Your task to perform on an android device: turn off airplane mode Image 0: 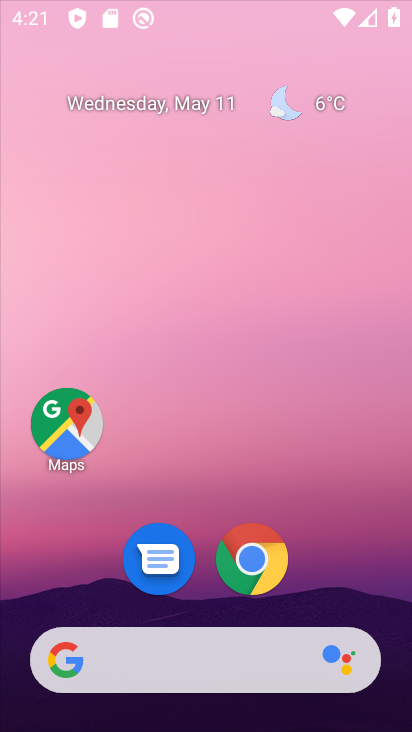
Step 0: drag from (322, 561) to (355, 190)
Your task to perform on an android device: turn off airplane mode Image 1: 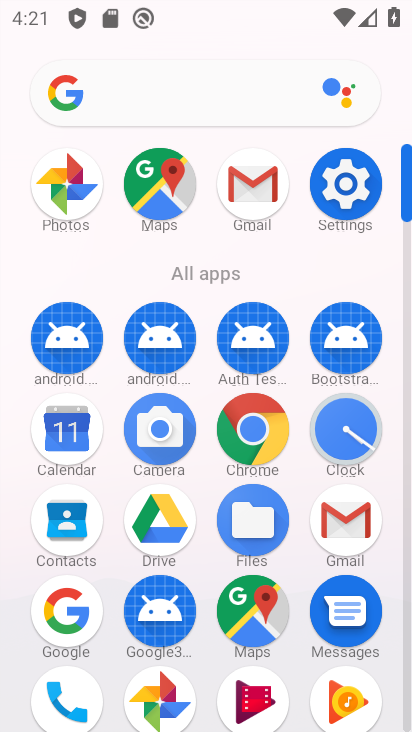
Step 1: click (347, 182)
Your task to perform on an android device: turn off airplane mode Image 2: 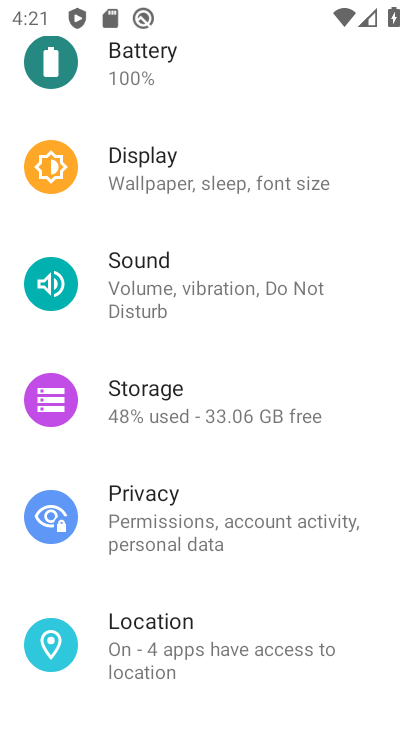
Step 2: drag from (207, 129) to (184, 490)
Your task to perform on an android device: turn off airplane mode Image 3: 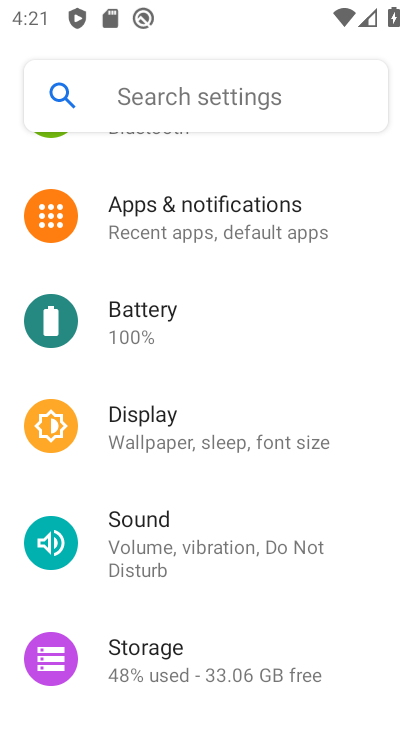
Step 3: drag from (207, 158) to (177, 525)
Your task to perform on an android device: turn off airplane mode Image 4: 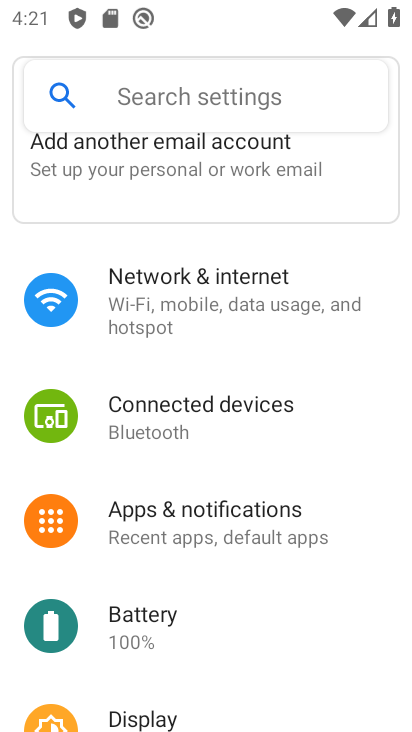
Step 4: click (174, 227)
Your task to perform on an android device: turn off airplane mode Image 5: 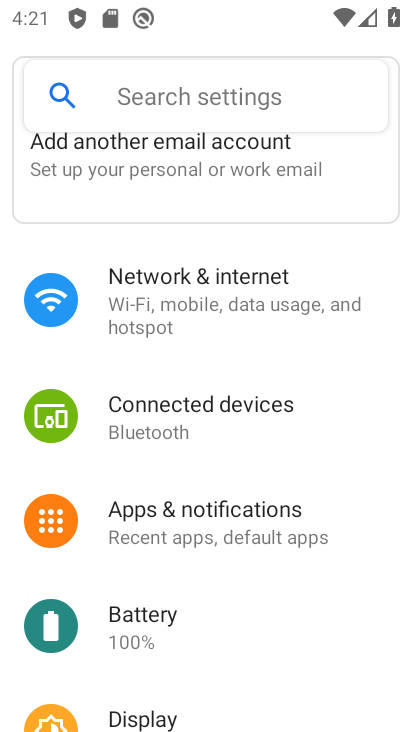
Step 5: click (174, 270)
Your task to perform on an android device: turn off airplane mode Image 6: 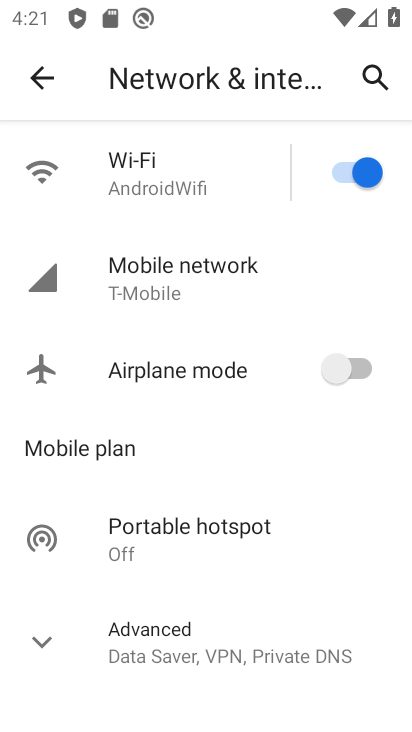
Step 6: task complete